Your task to perform on an android device: refresh tabs in the chrome app Image 0: 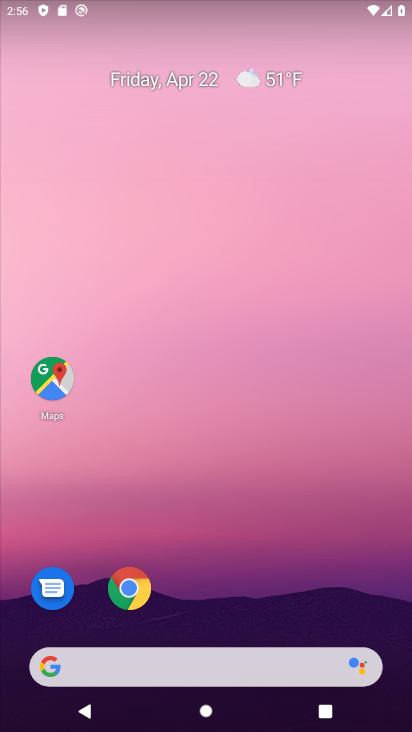
Step 0: drag from (371, 592) to (372, 128)
Your task to perform on an android device: refresh tabs in the chrome app Image 1: 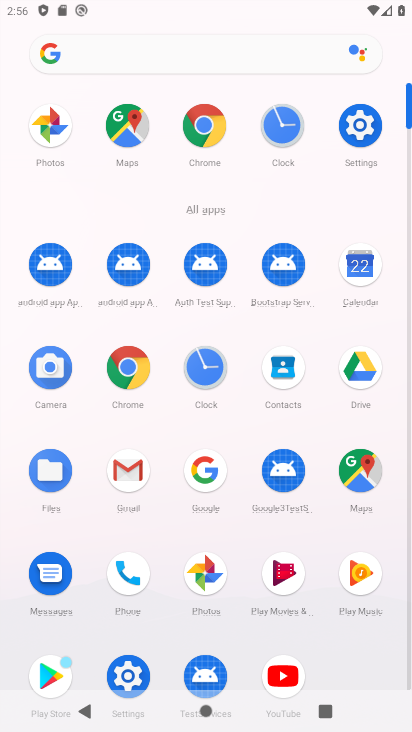
Step 1: click (212, 135)
Your task to perform on an android device: refresh tabs in the chrome app Image 2: 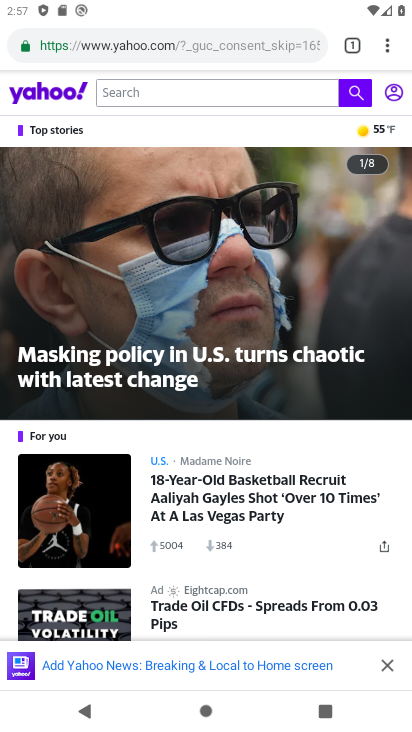
Step 2: click (387, 50)
Your task to perform on an android device: refresh tabs in the chrome app Image 3: 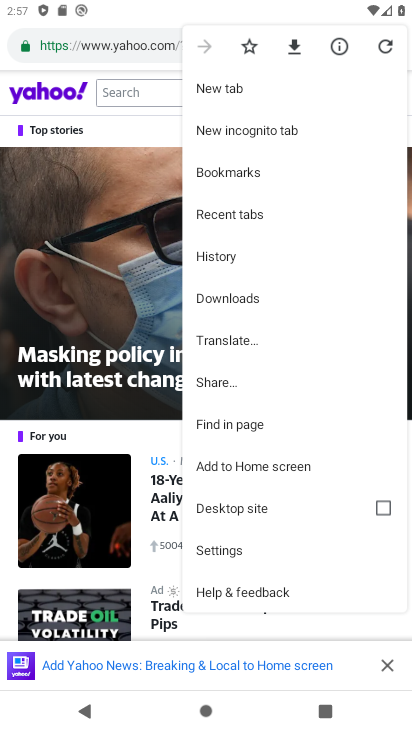
Step 3: click (387, 50)
Your task to perform on an android device: refresh tabs in the chrome app Image 4: 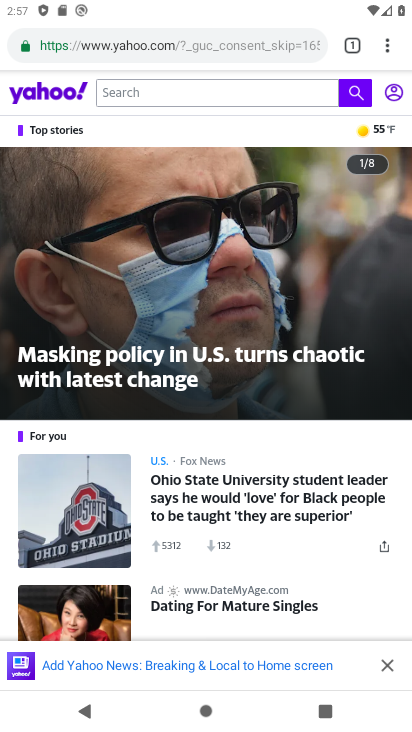
Step 4: task complete